Your task to perform on an android device: Open Youtube and go to the subscriptions tab Image 0: 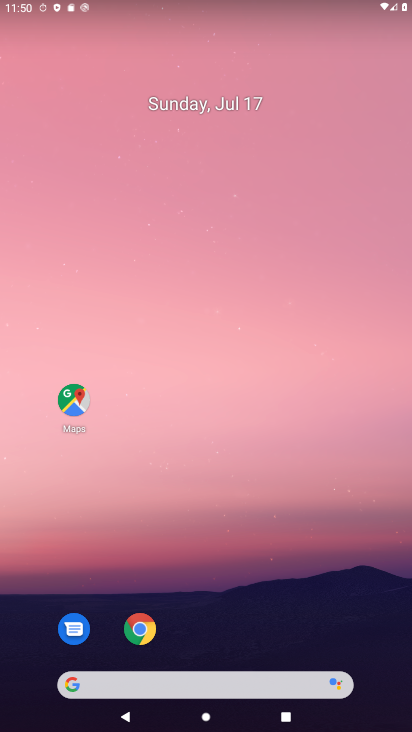
Step 0: press home button
Your task to perform on an android device: Open Youtube and go to the subscriptions tab Image 1: 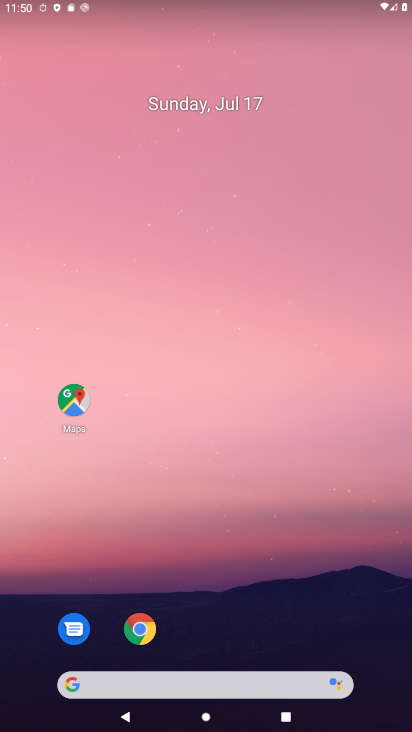
Step 1: drag from (203, 654) to (283, 56)
Your task to perform on an android device: Open Youtube and go to the subscriptions tab Image 2: 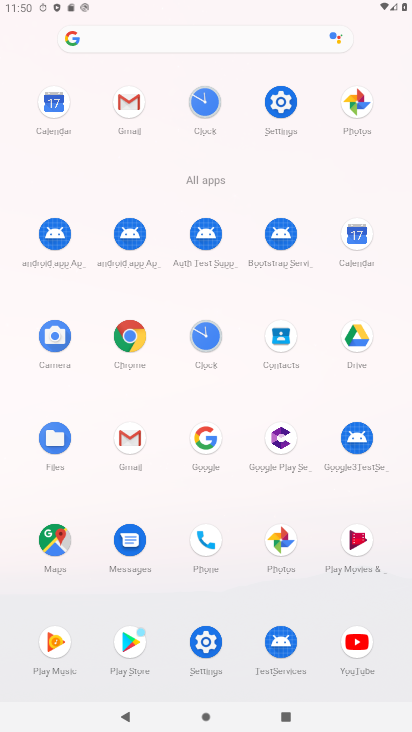
Step 2: click (354, 638)
Your task to perform on an android device: Open Youtube and go to the subscriptions tab Image 3: 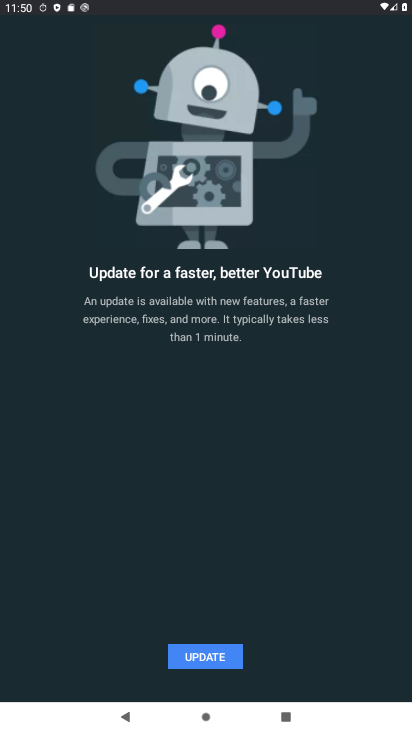
Step 3: click (201, 653)
Your task to perform on an android device: Open Youtube and go to the subscriptions tab Image 4: 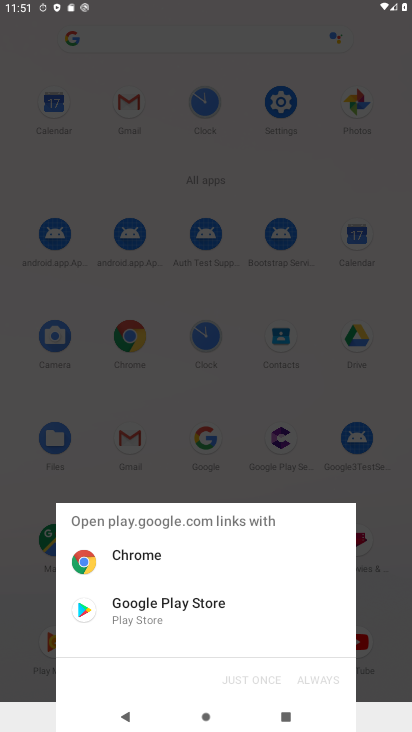
Step 4: click (156, 618)
Your task to perform on an android device: Open Youtube and go to the subscriptions tab Image 5: 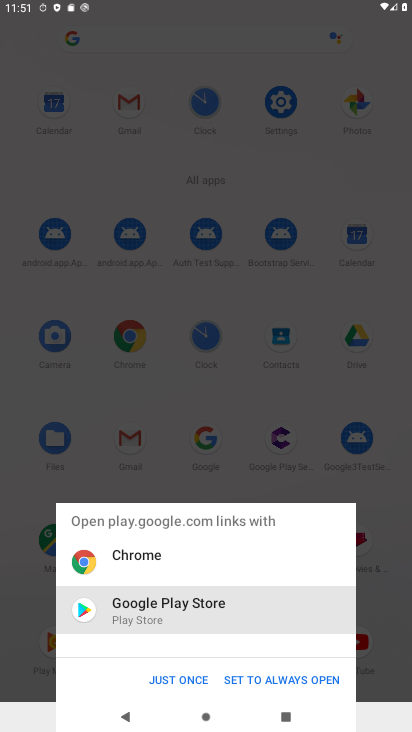
Step 5: click (184, 683)
Your task to perform on an android device: Open Youtube and go to the subscriptions tab Image 6: 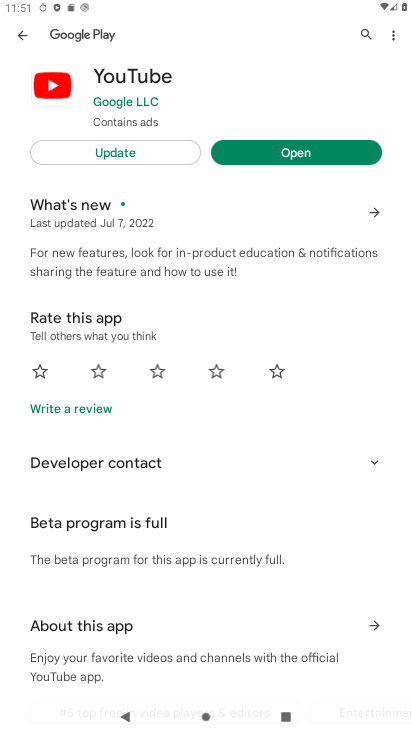
Step 6: click (127, 144)
Your task to perform on an android device: Open Youtube and go to the subscriptions tab Image 7: 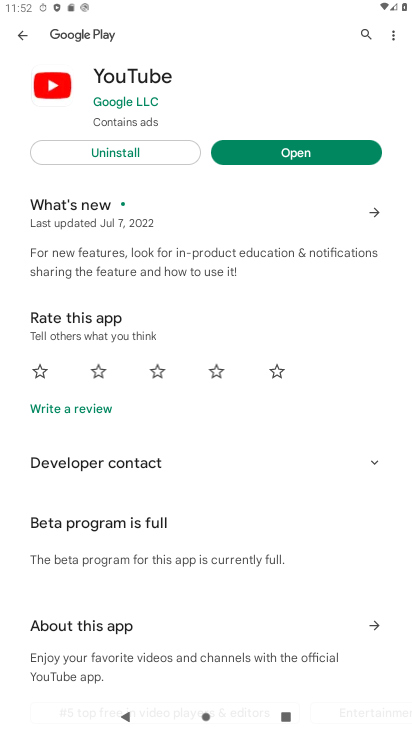
Step 7: click (287, 152)
Your task to perform on an android device: Open Youtube and go to the subscriptions tab Image 8: 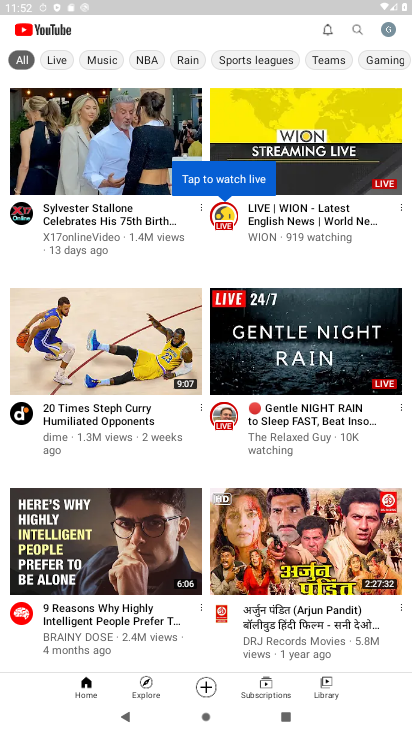
Step 8: click (262, 679)
Your task to perform on an android device: Open Youtube and go to the subscriptions tab Image 9: 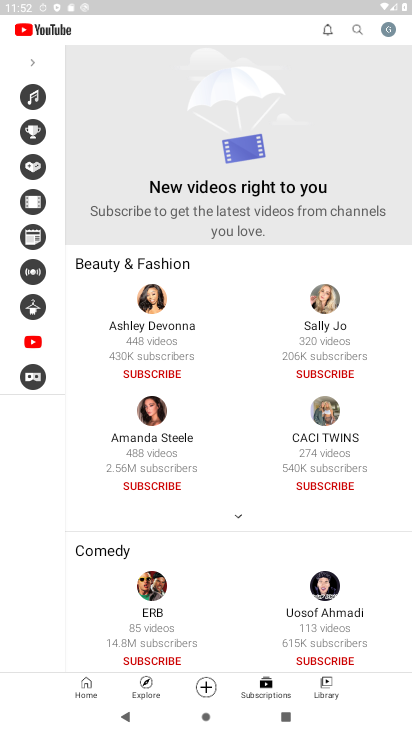
Step 9: task complete